Your task to perform on an android device: turn off sleep mode Image 0: 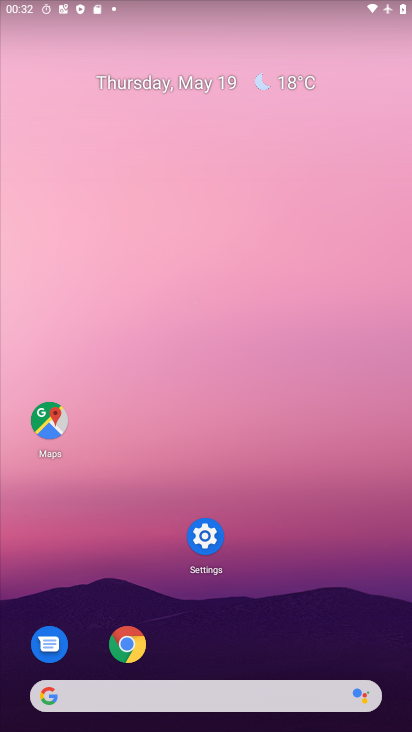
Step 0: drag from (300, 579) to (279, 129)
Your task to perform on an android device: turn off sleep mode Image 1: 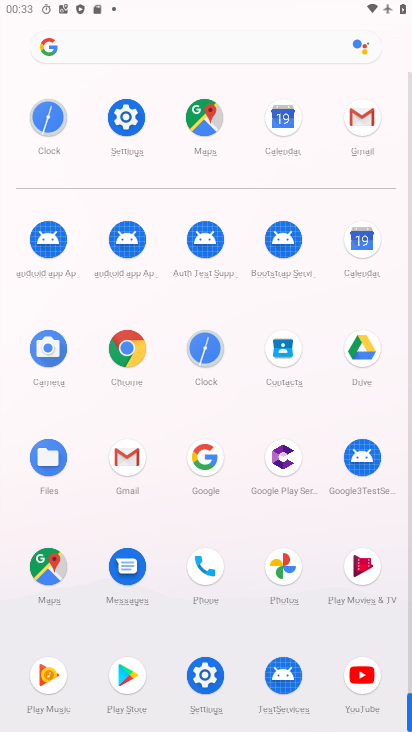
Step 1: click (133, 121)
Your task to perform on an android device: turn off sleep mode Image 2: 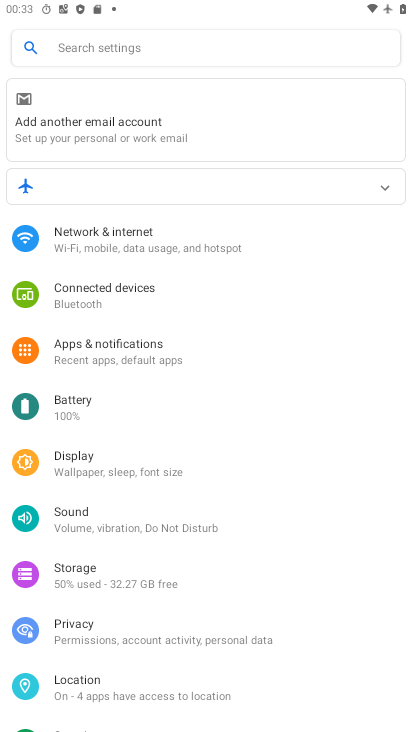
Step 2: click (103, 469)
Your task to perform on an android device: turn off sleep mode Image 3: 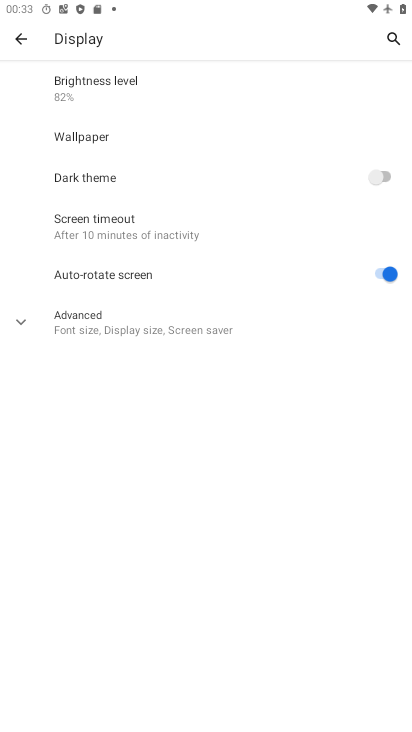
Step 3: click (176, 232)
Your task to perform on an android device: turn off sleep mode Image 4: 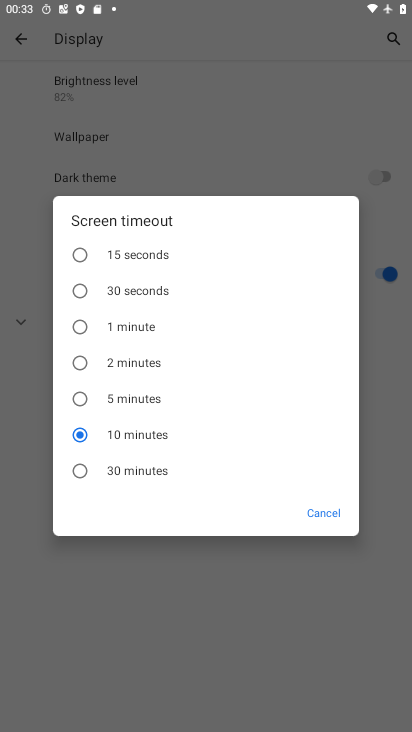
Step 4: task complete